Your task to perform on an android device: What's the news in Bangladesh? Image 0: 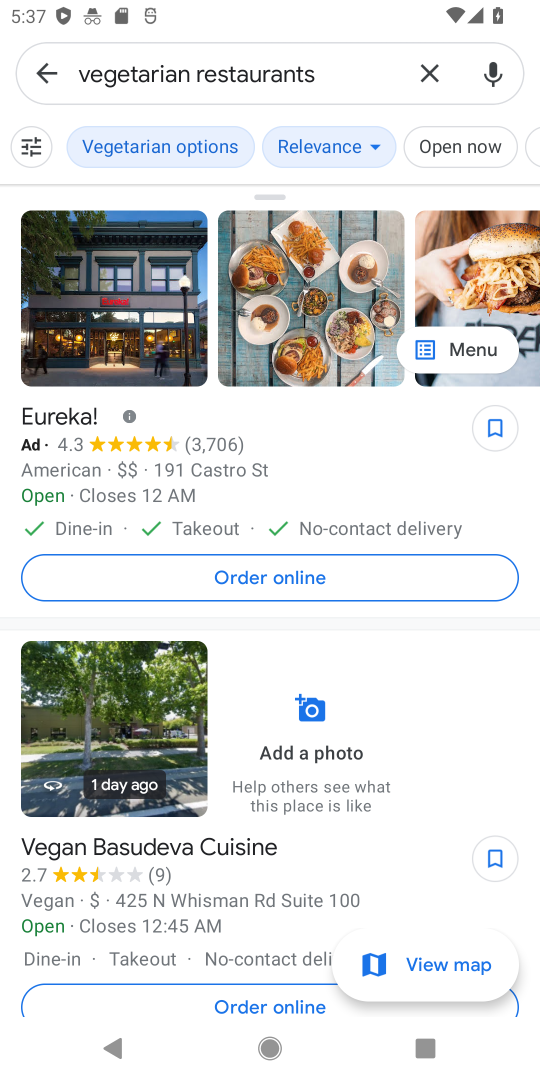
Step 0: press home button
Your task to perform on an android device: What's the news in Bangladesh? Image 1: 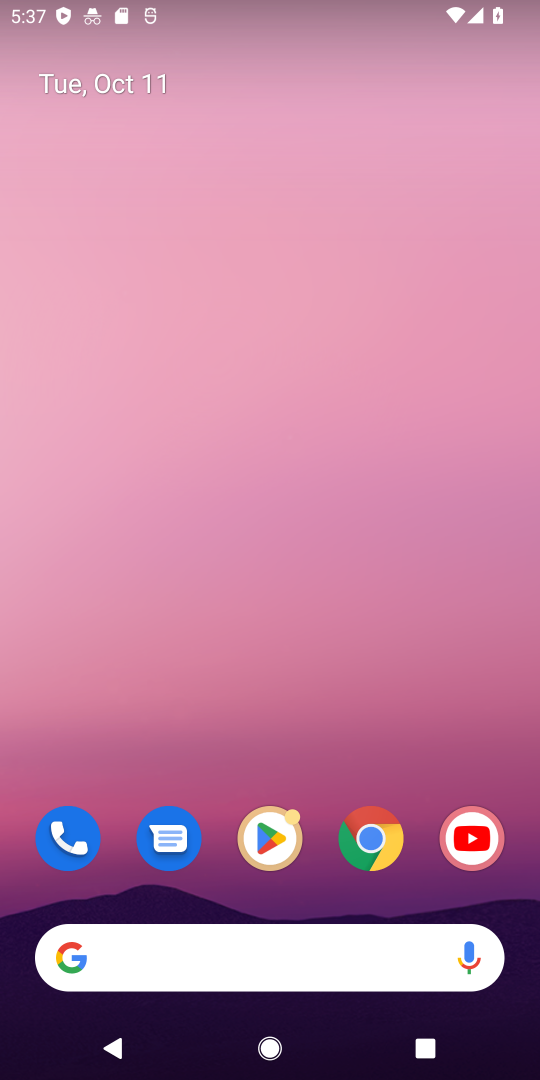
Step 1: click (358, 840)
Your task to perform on an android device: What's the news in Bangladesh? Image 2: 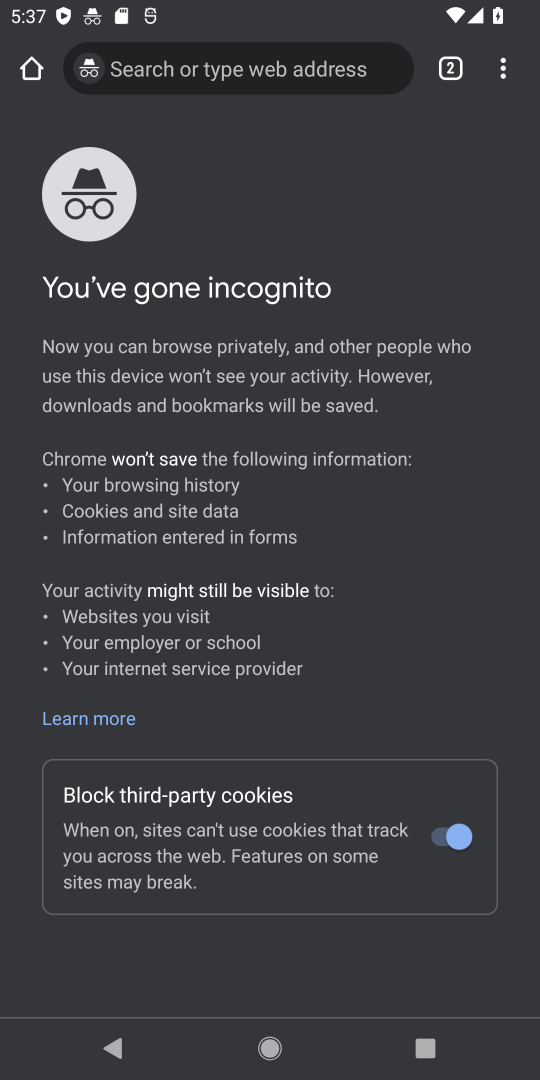
Step 2: click (318, 75)
Your task to perform on an android device: What's the news in Bangladesh? Image 3: 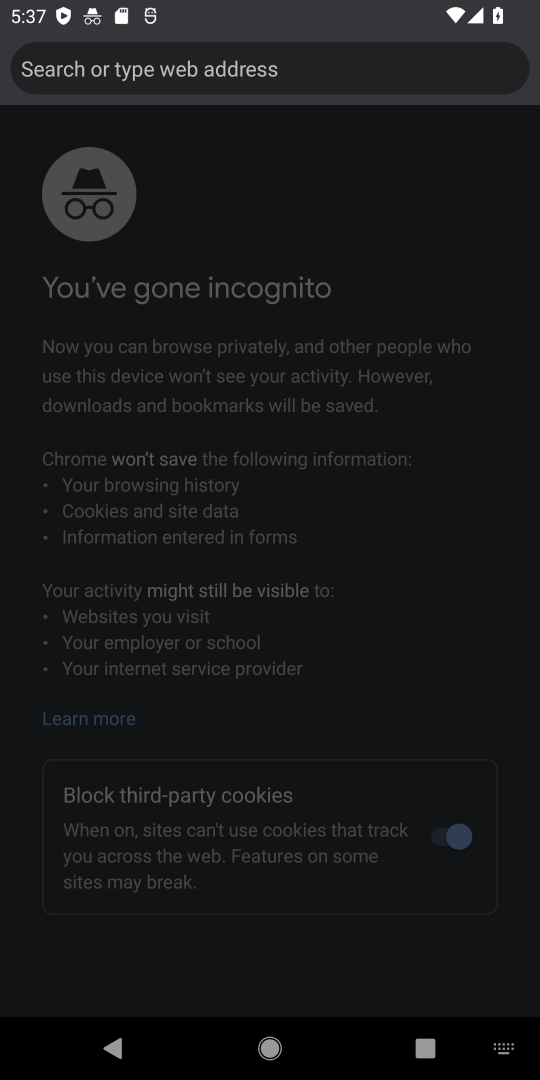
Step 3: type "Bangladesh"
Your task to perform on an android device: What's the news in Bangladesh? Image 4: 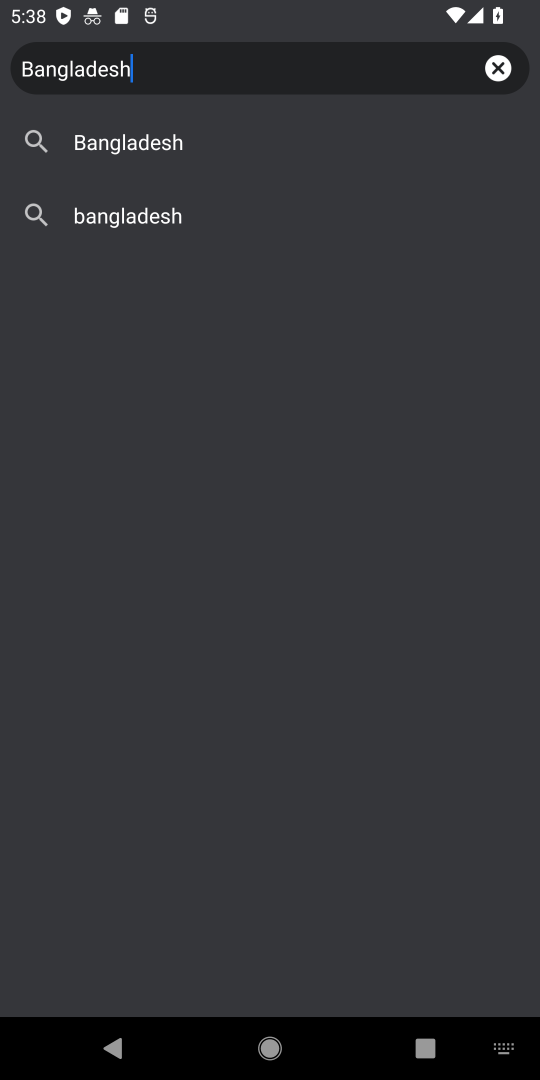
Step 4: click (152, 145)
Your task to perform on an android device: What's the news in Bangladesh? Image 5: 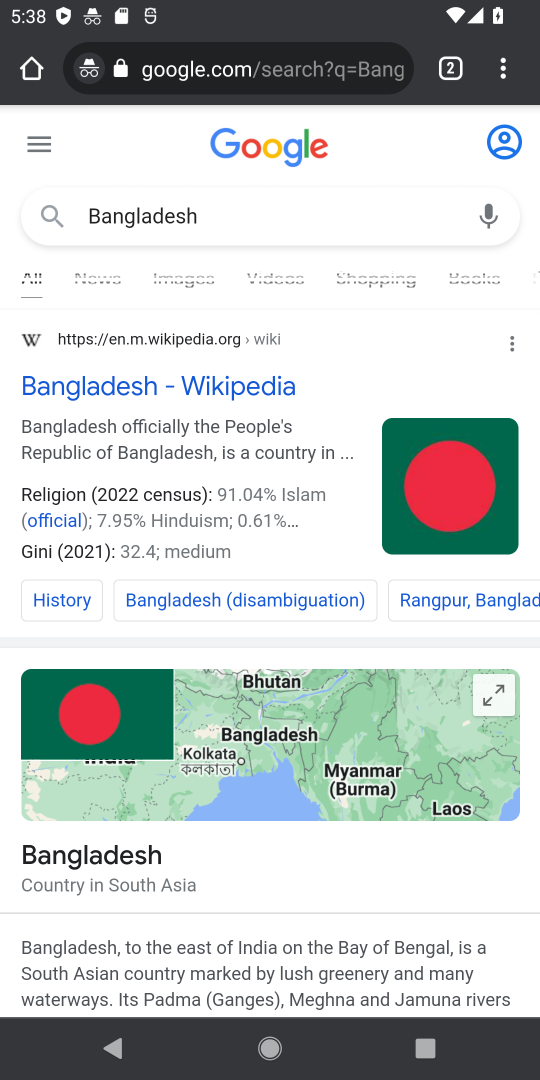
Step 5: click (95, 277)
Your task to perform on an android device: What's the news in Bangladesh? Image 6: 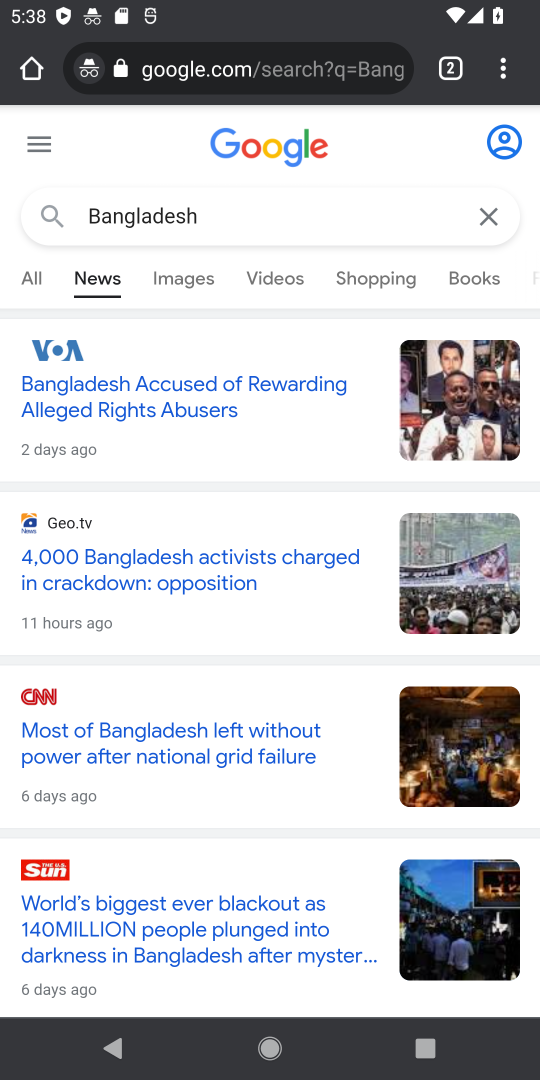
Step 6: task complete